Your task to perform on an android device: Go to internet settings Image 0: 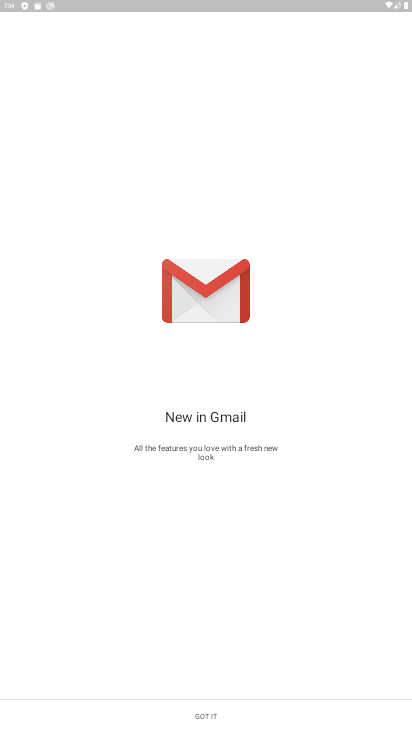
Step 0: press home button
Your task to perform on an android device: Go to internet settings Image 1: 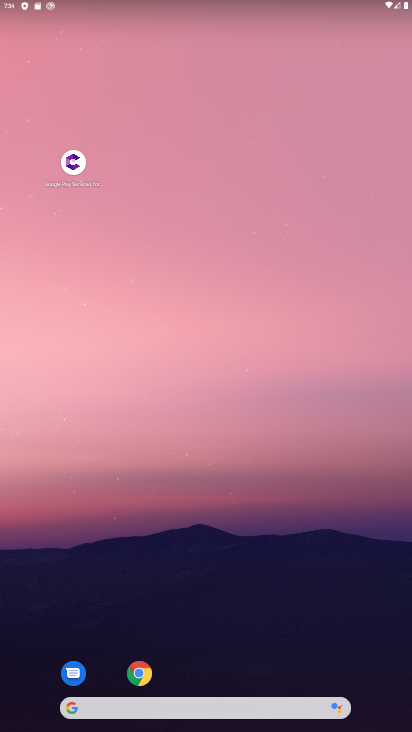
Step 1: drag from (163, 717) to (311, 74)
Your task to perform on an android device: Go to internet settings Image 2: 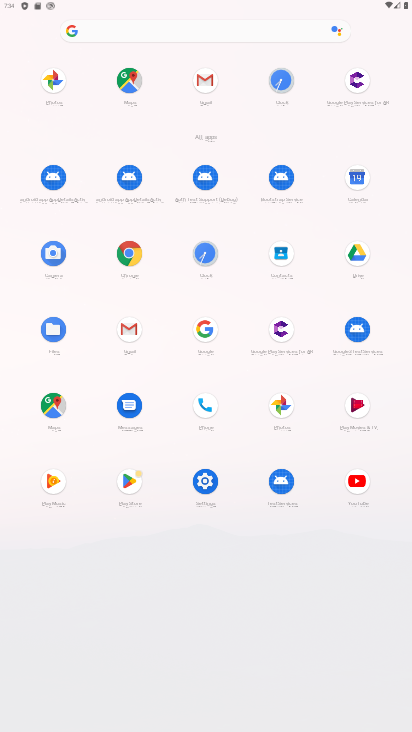
Step 2: click (208, 477)
Your task to perform on an android device: Go to internet settings Image 3: 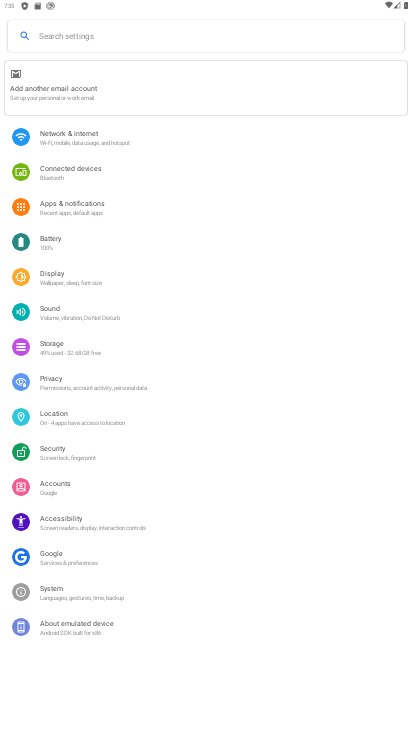
Step 3: click (136, 140)
Your task to perform on an android device: Go to internet settings Image 4: 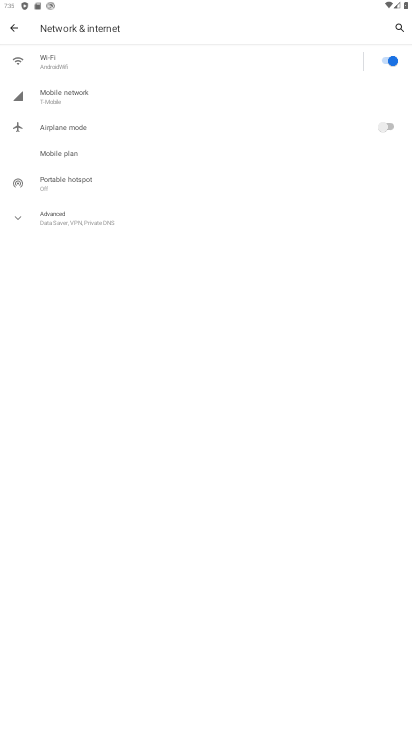
Step 4: task complete